Your task to perform on an android device: What's the weather going to be this weekend? Image 0: 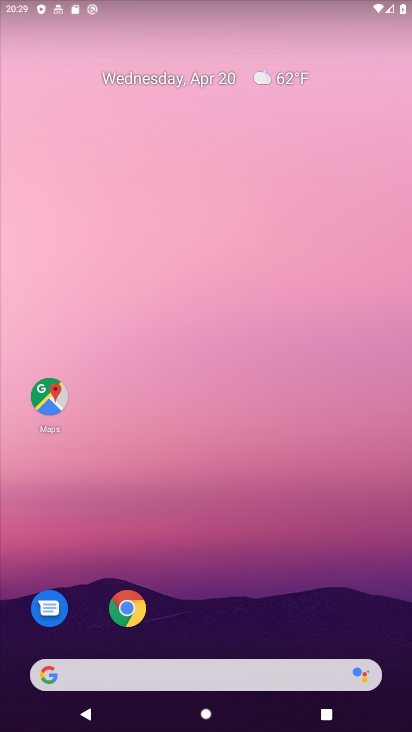
Step 0: drag from (260, 614) to (284, 5)
Your task to perform on an android device: What's the weather going to be this weekend? Image 1: 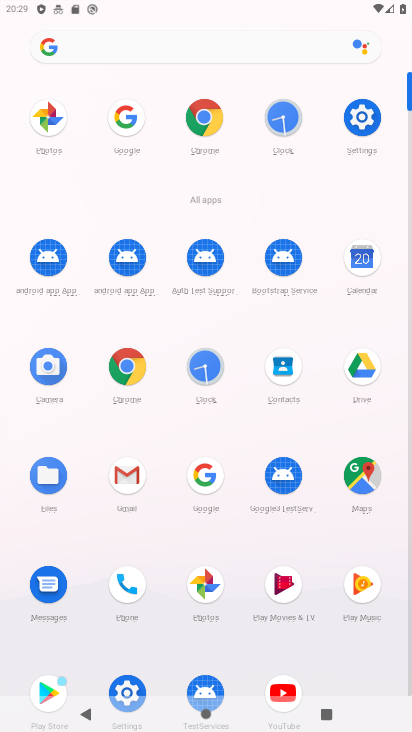
Step 1: click (358, 267)
Your task to perform on an android device: What's the weather going to be this weekend? Image 2: 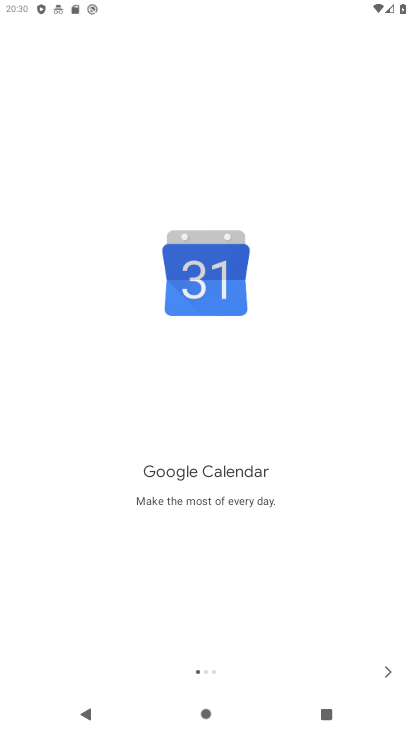
Step 2: press home button
Your task to perform on an android device: What's the weather going to be this weekend? Image 3: 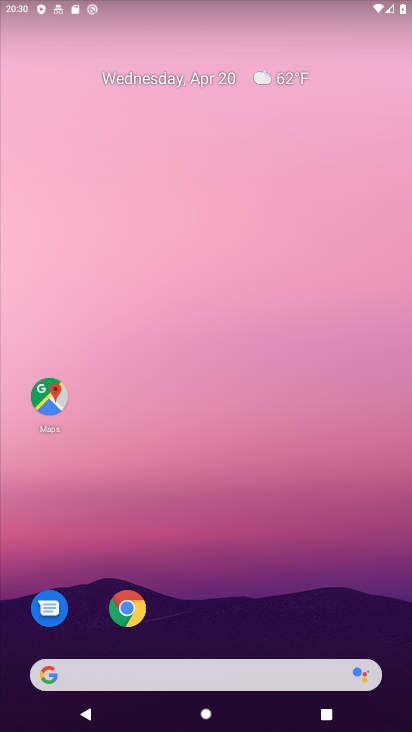
Step 3: click (126, 602)
Your task to perform on an android device: What's the weather going to be this weekend? Image 4: 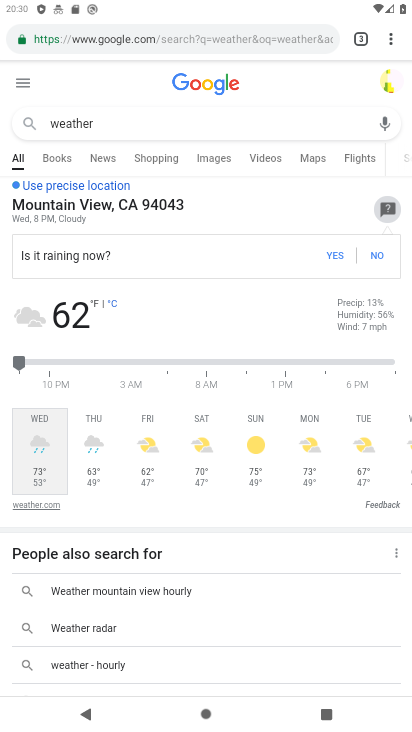
Step 4: click (223, 40)
Your task to perform on an android device: What's the weather going to be this weekend? Image 5: 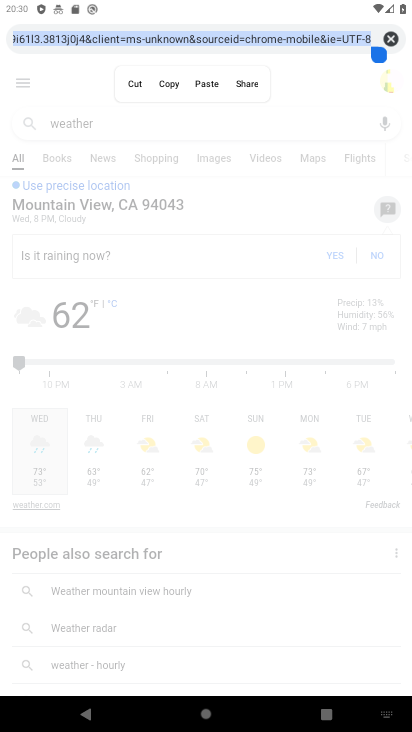
Step 5: click (386, 39)
Your task to perform on an android device: What's the weather going to be this weekend? Image 6: 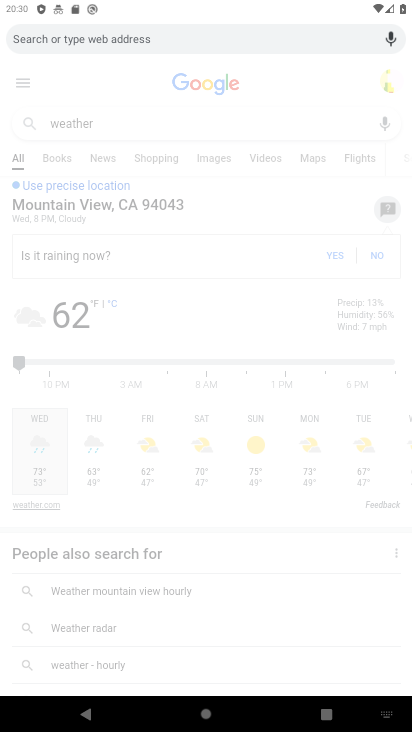
Step 6: click (288, 36)
Your task to perform on an android device: What's the weather going to be this weekend? Image 7: 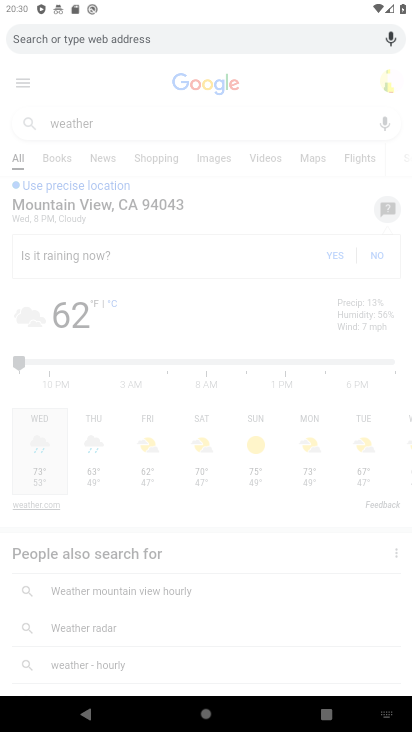
Step 7: type "What's the weather going to be this weekend?"
Your task to perform on an android device: What's the weather going to be this weekend? Image 8: 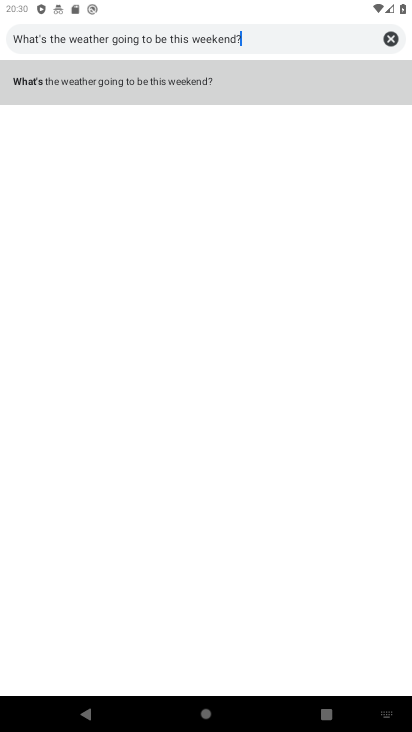
Step 8: click (155, 82)
Your task to perform on an android device: What's the weather going to be this weekend? Image 9: 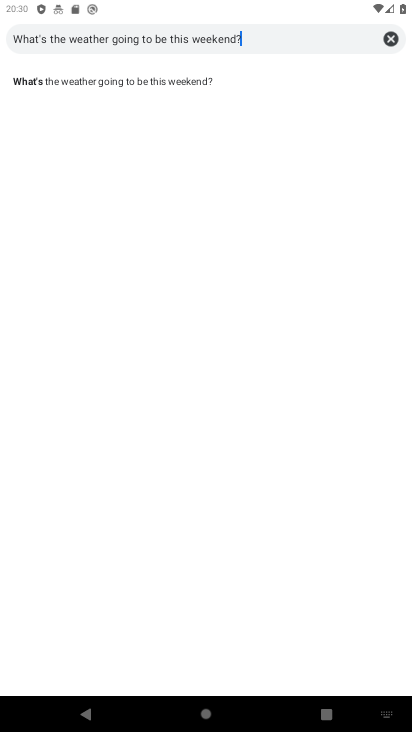
Step 9: click (38, 89)
Your task to perform on an android device: What's the weather going to be this weekend? Image 10: 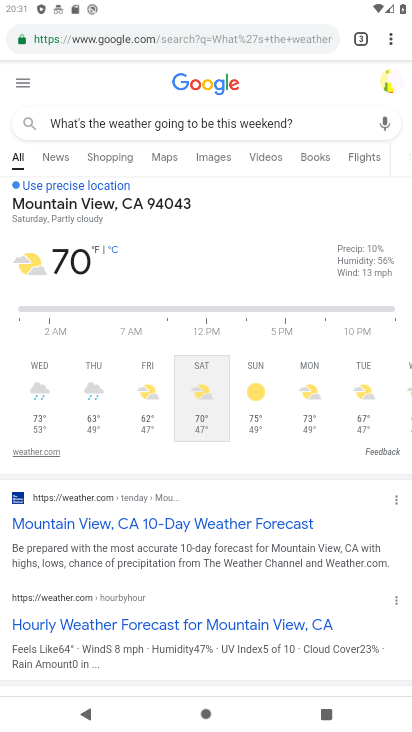
Step 10: task complete